Your task to perform on an android device: Open CNN.com Image 0: 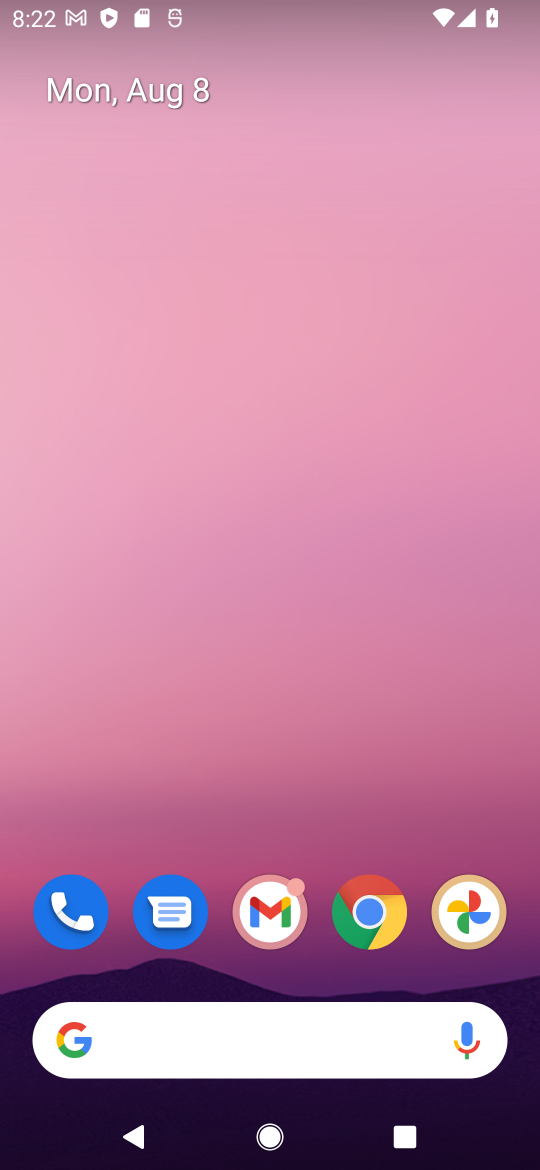
Step 0: drag from (519, 905) to (373, 40)
Your task to perform on an android device: Open CNN.com Image 1: 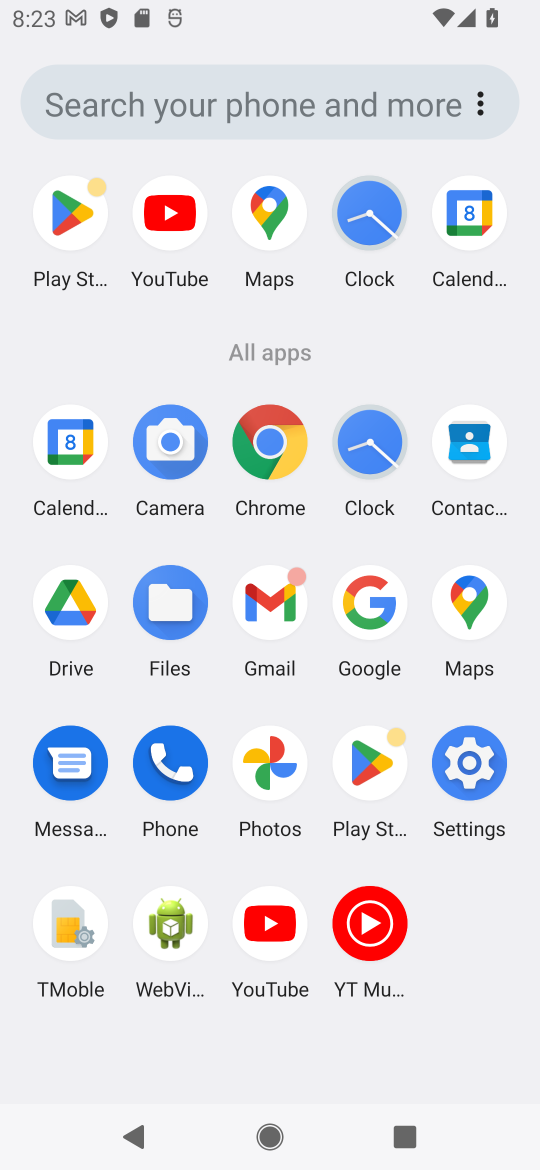
Step 1: click (357, 610)
Your task to perform on an android device: Open CNN.com Image 2: 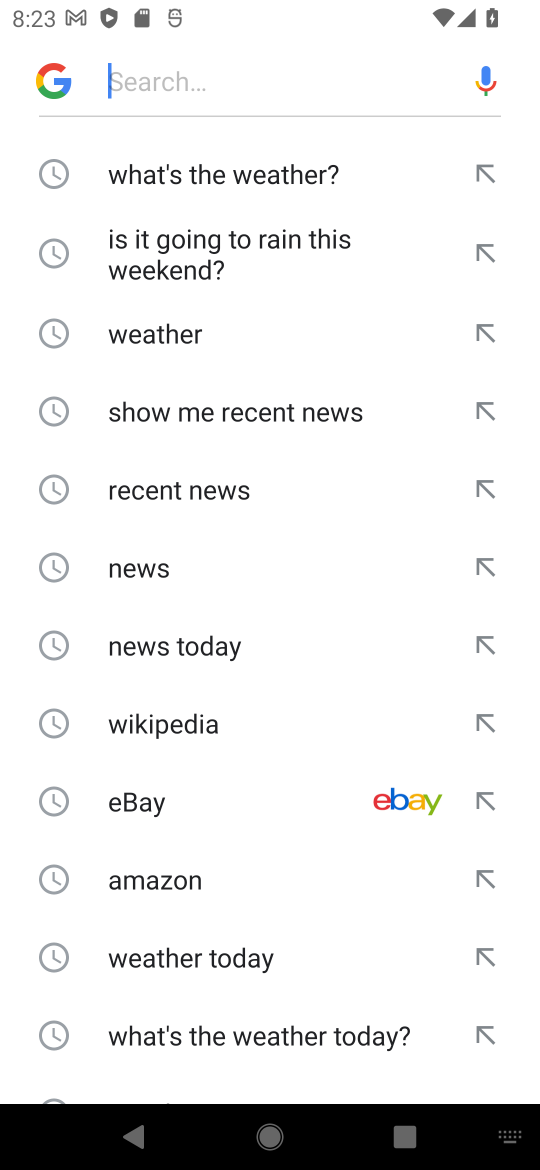
Step 2: type "CNN.com"
Your task to perform on an android device: Open CNN.com Image 3: 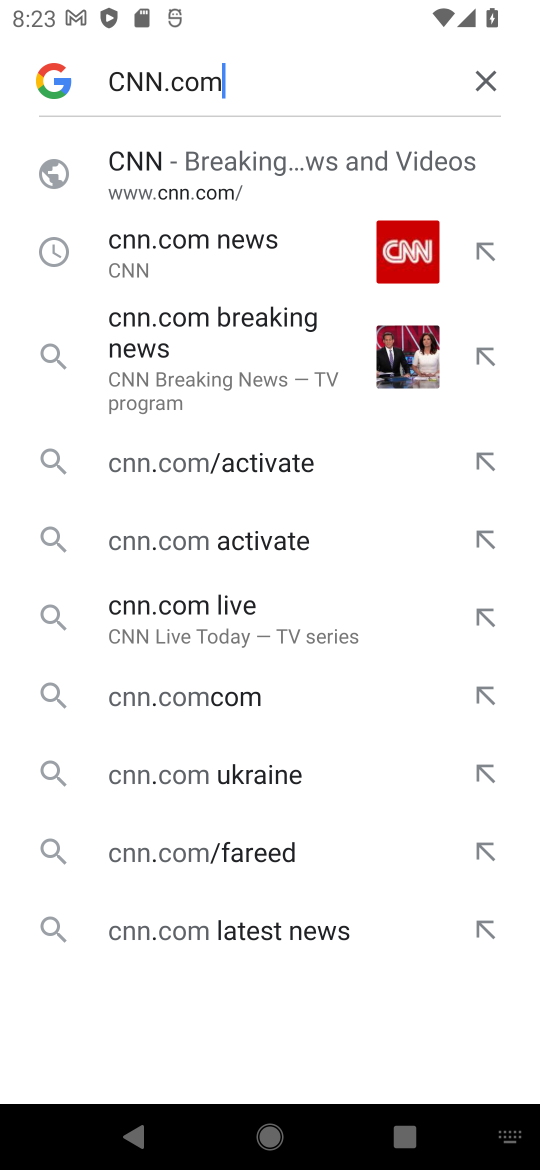
Step 3: click (202, 194)
Your task to perform on an android device: Open CNN.com Image 4: 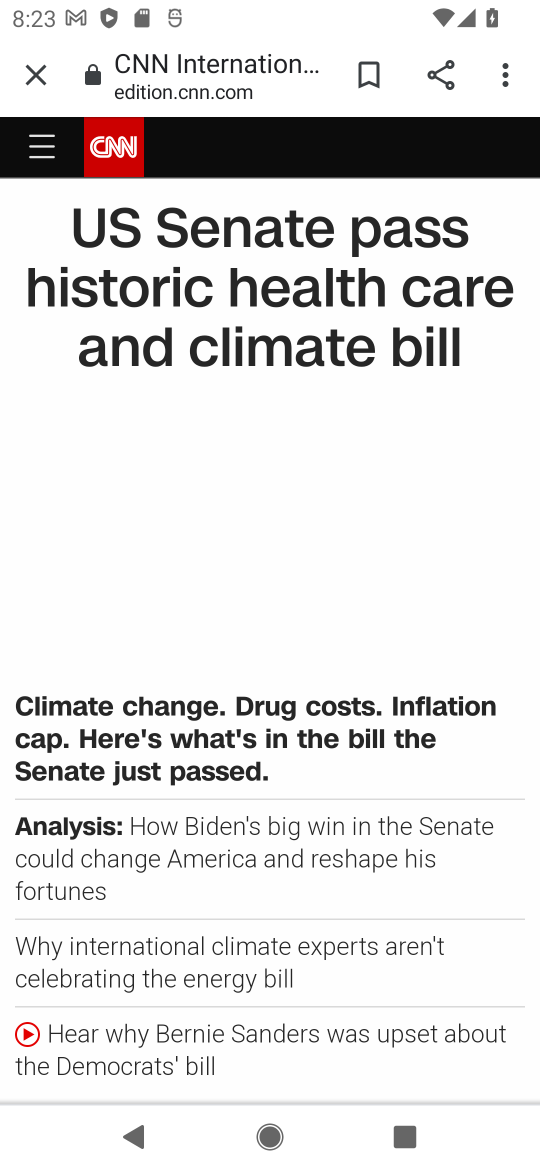
Step 4: task complete